Your task to perform on an android device: turn off sleep mode Image 0: 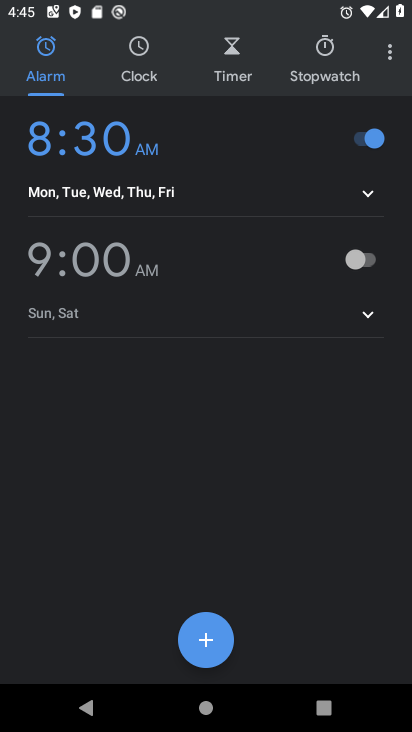
Step 0: press home button
Your task to perform on an android device: turn off sleep mode Image 1: 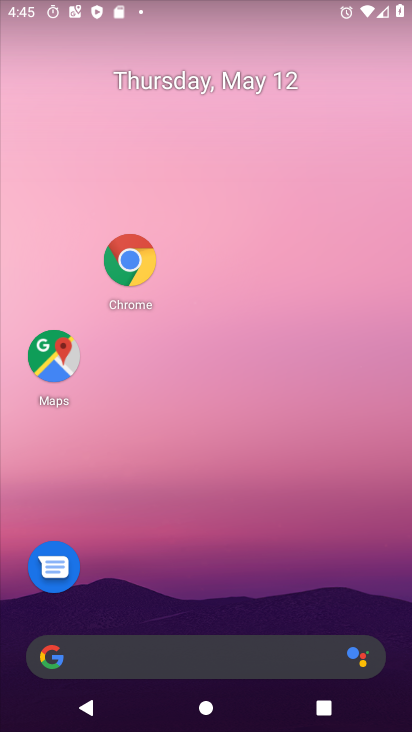
Step 1: drag from (243, 636) to (224, 284)
Your task to perform on an android device: turn off sleep mode Image 2: 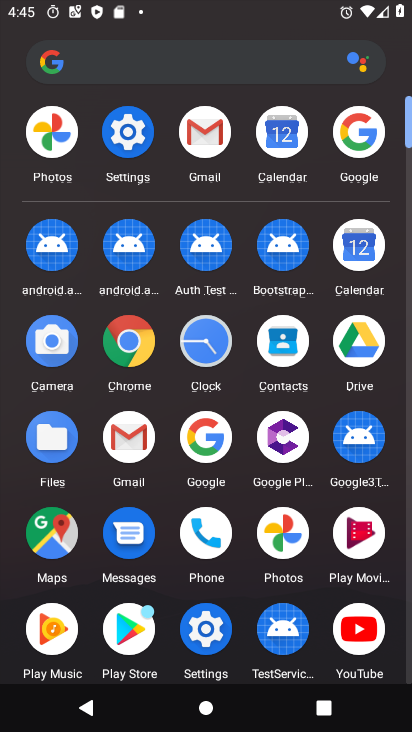
Step 2: click (130, 137)
Your task to perform on an android device: turn off sleep mode Image 3: 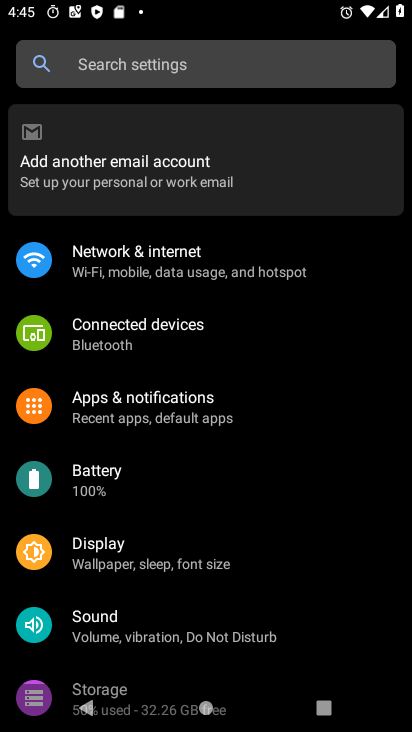
Step 3: click (159, 556)
Your task to perform on an android device: turn off sleep mode Image 4: 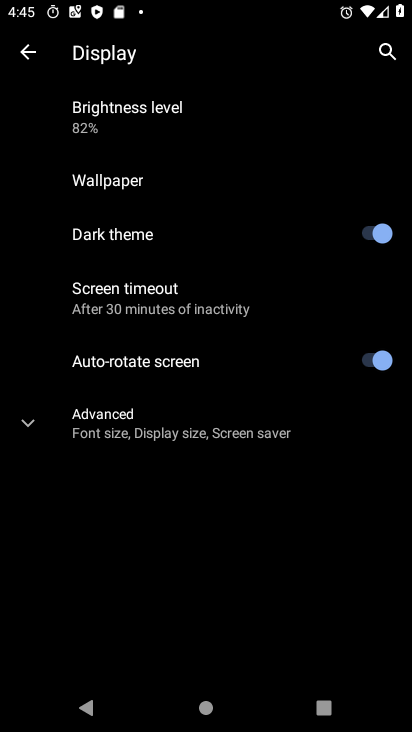
Step 4: click (136, 314)
Your task to perform on an android device: turn off sleep mode Image 5: 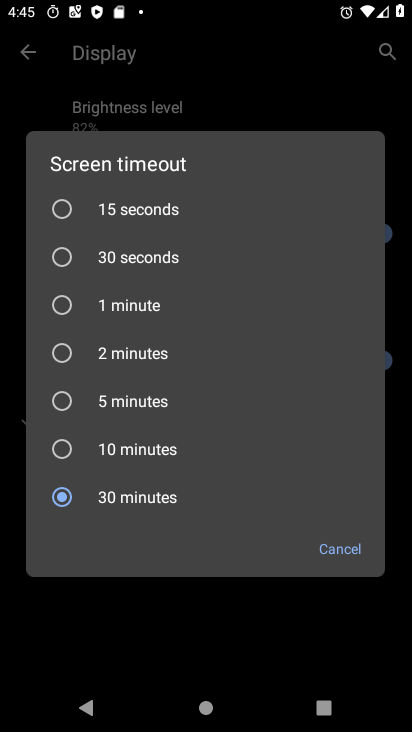
Step 5: click (134, 304)
Your task to perform on an android device: turn off sleep mode Image 6: 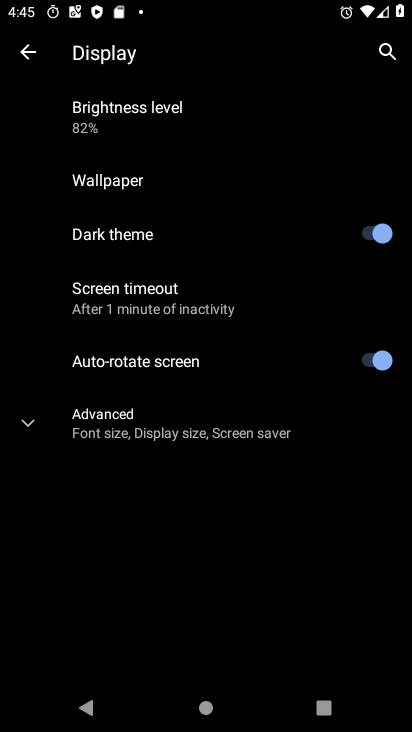
Step 6: task complete